Your task to perform on an android device: Search for "apple airpods pro" on target.com, select the first entry, and add it to the cart. Image 0: 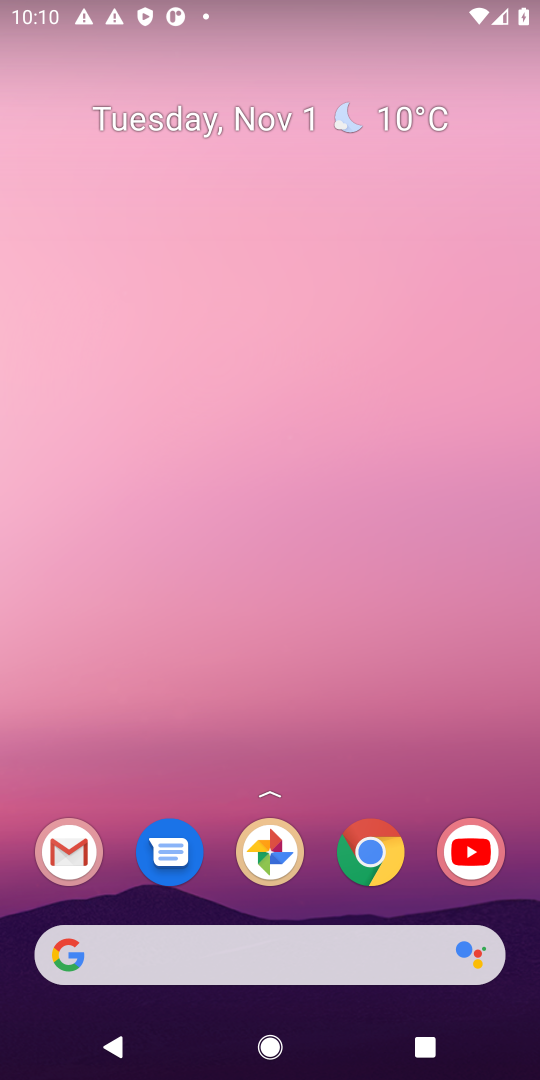
Step 0: click (62, 947)
Your task to perform on an android device: Search for "apple airpods pro" on target.com, select the first entry, and add it to the cart. Image 1: 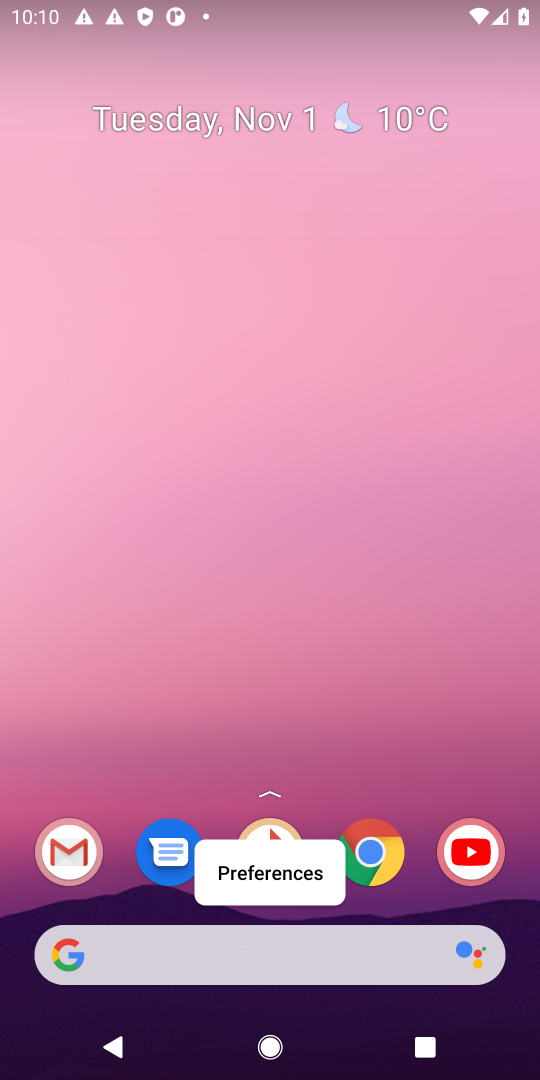
Step 1: click (66, 997)
Your task to perform on an android device: Search for "apple airpods pro" on target.com, select the first entry, and add it to the cart. Image 2: 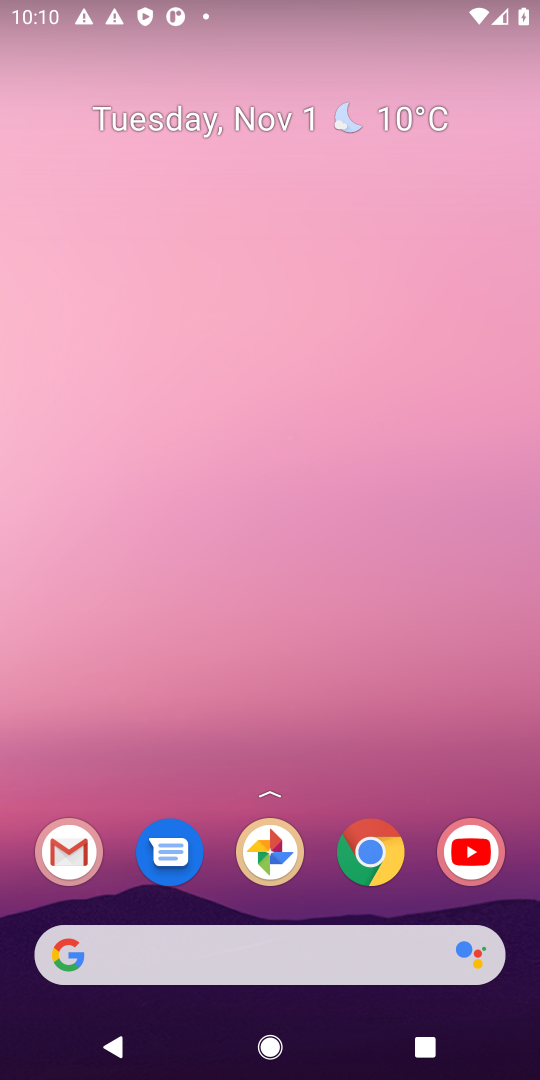
Step 2: click (62, 961)
Your task to perform on an android device: Search for "apple airpods pro" on target.com, select the first entry, and add it to the cart. Image 3: 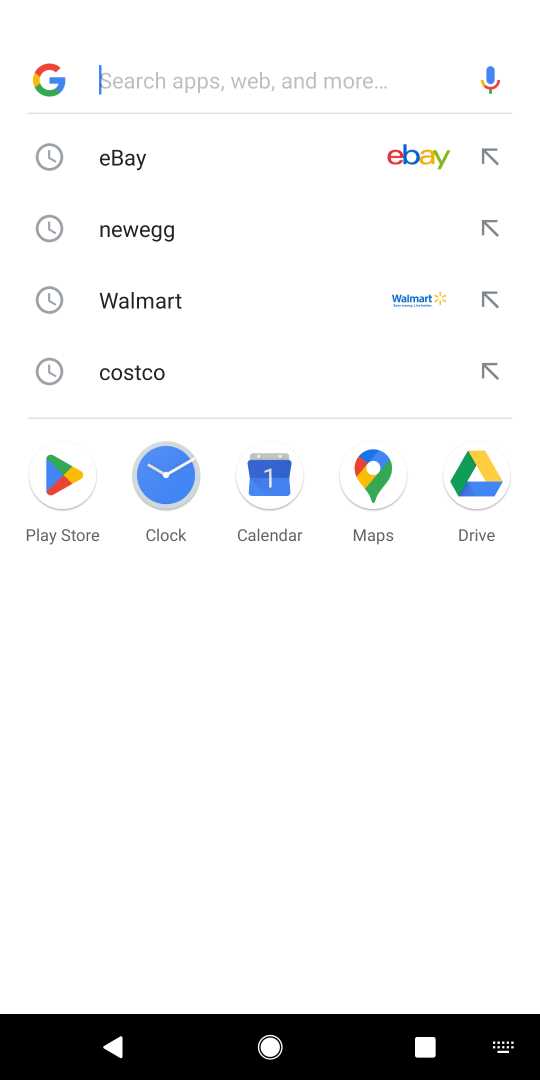
Step 3: type "target.com"
Your task to perform on an android device: Search for "apple airpods pro" on target.com, select the first entry, and add it to the cart. Image 4: 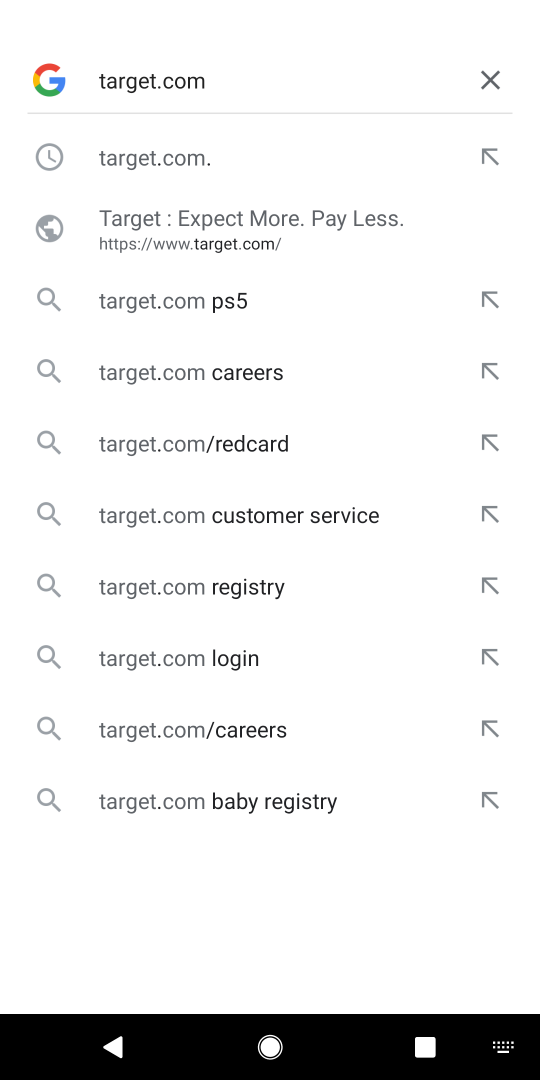
Step 4: press enter
Your task to perform on an android device: Search for "apple airpods pro" on target.com, select the first entry, and add it to the cart. Image 5: 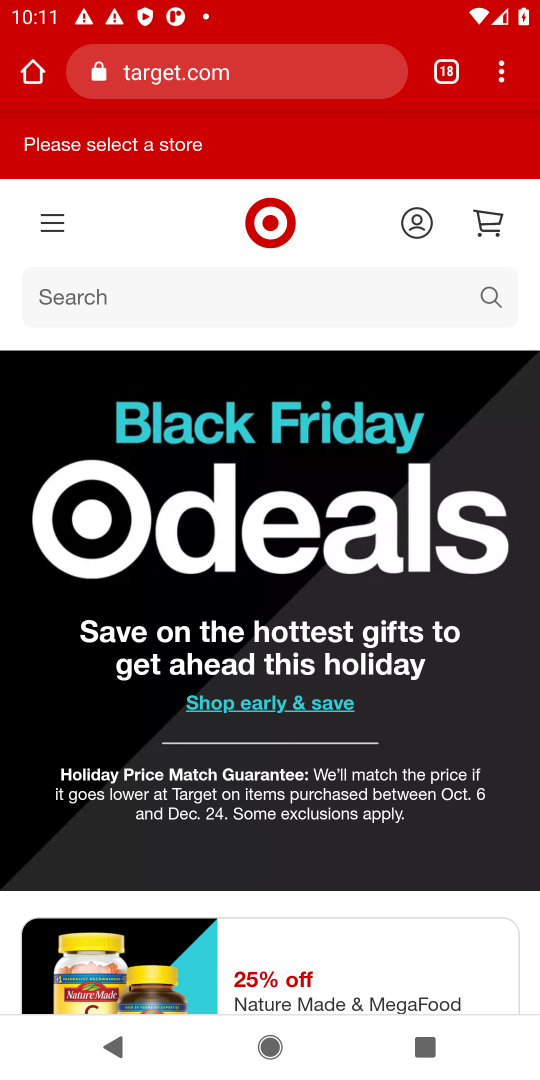
Step 5: click (216, 68)
Your task to perform on an android device: Search for "apple airpods pro" on target.com, select the first entry, and add it to the cart. Image 6: 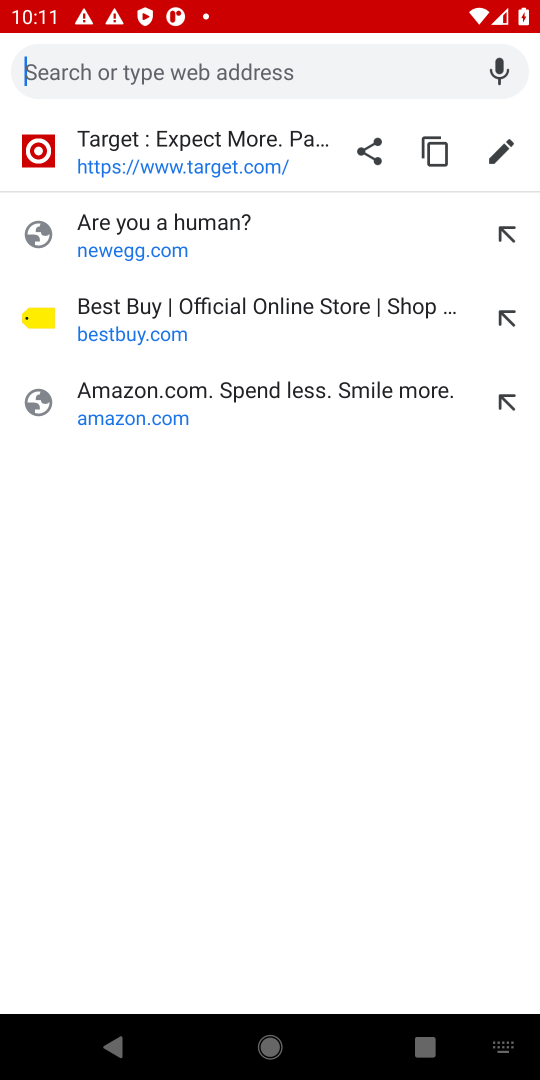
Step 6: type "apple airpods pro"
Your task to perform on an android device: Search for "apple airpods pro" on target.com, select the first entry, and add it to the cart. Image 7: 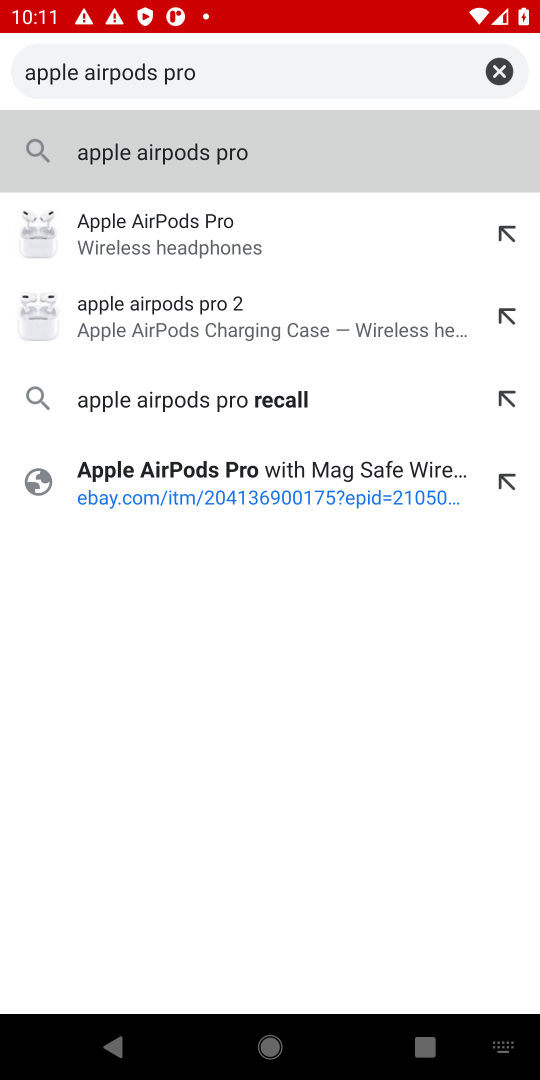
Step 7: press enter
Your task to perform on an android device: Search for "apple airpods pro" on target.com, select the first entry, and add it to the cart. Image 8: 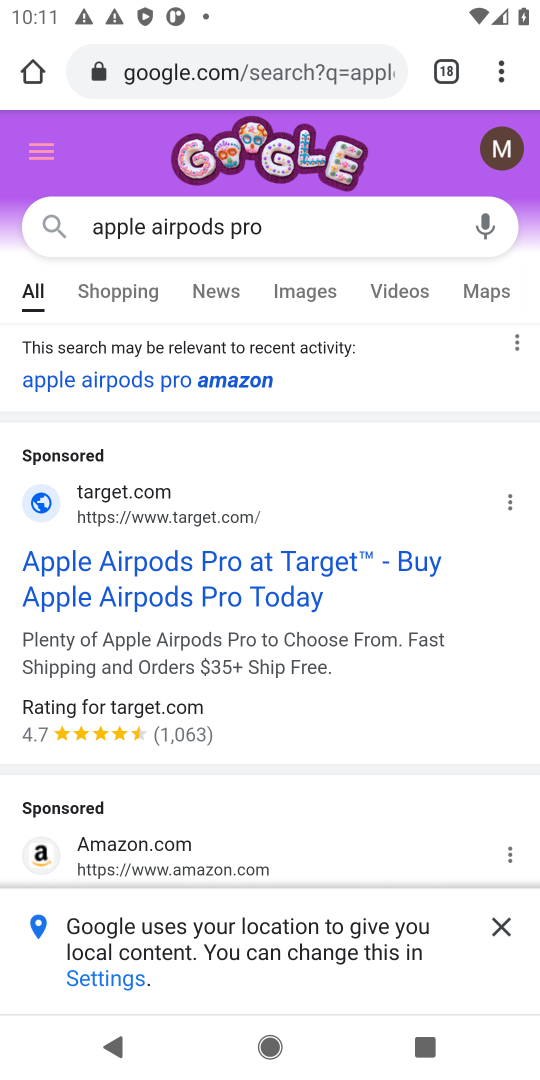
Step 8: click (202, 571)
Your task to perform on an android device: Search for "apple airpods pro" on target.com, select the first entry, and add it to the cart. Image 9: 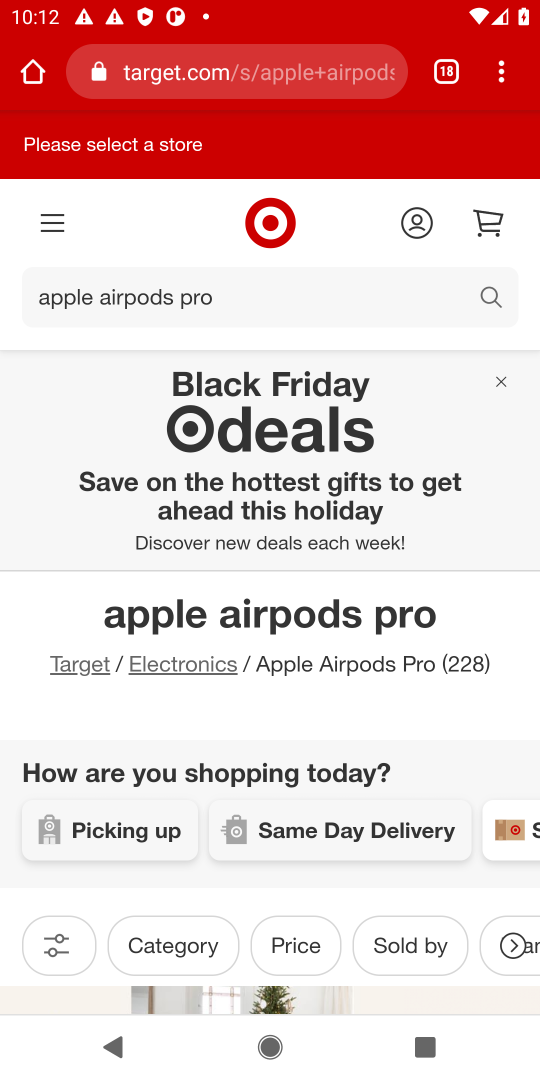
Step 9: drag from (461, 707) to (467, 163)
Your task to perform on an android device: Search for "apple airpods pro" on target.com, select the first entry, and add it to the cart. Image 10: 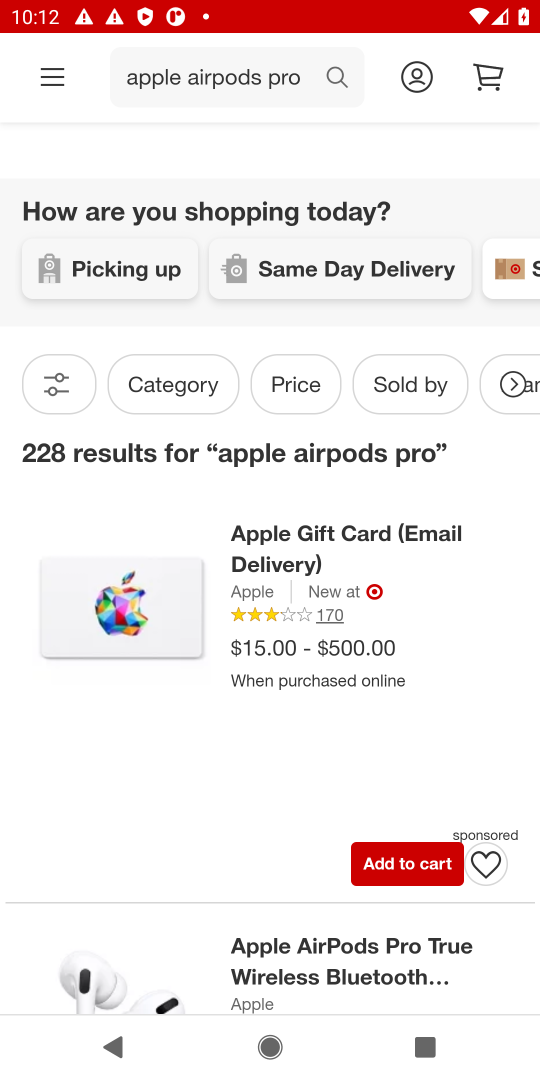
Step 10: drag from (412, 739) to (440, 357)
Your task to perform on an android device: Search for "apple airpods pro" on target.com, select the first entry, and add it to the cart. Image 11: 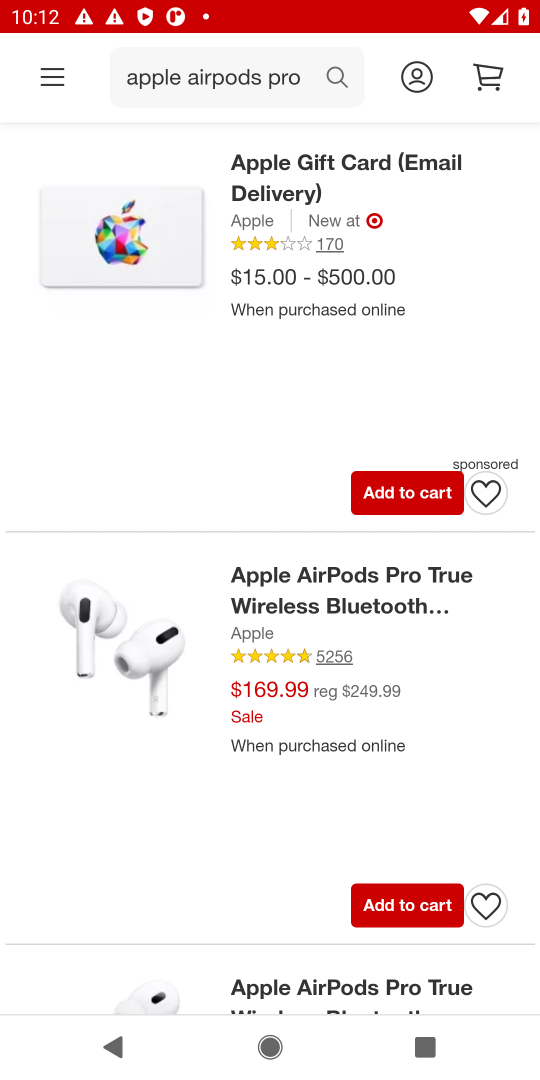
Step 11: click (124, 641)
Your task to perform on an android device: Search for "apple airpods pro" on target.com, select the first entry, and add it to the cart. Image 12: 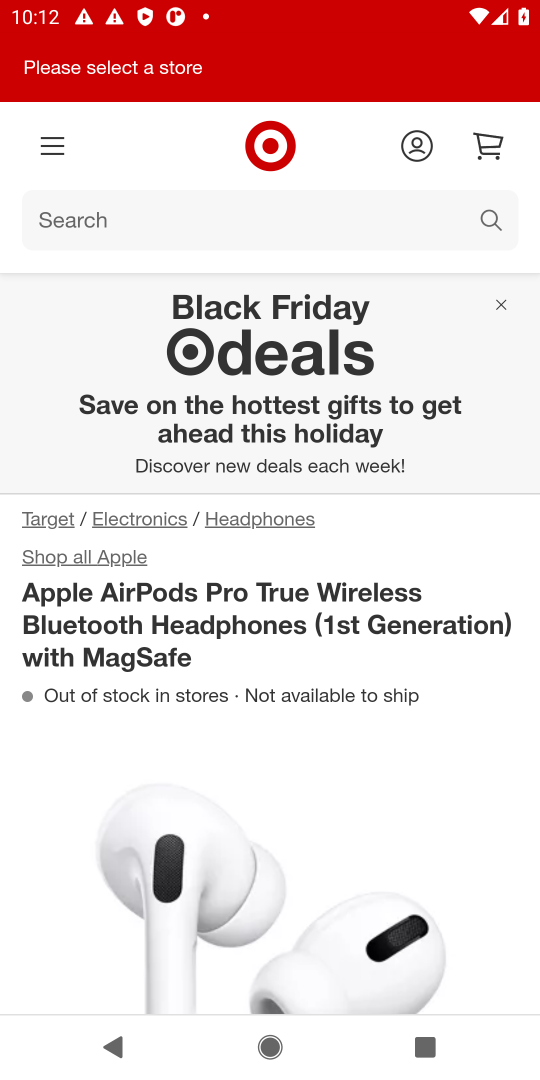
Step 12: drag from (311, 811) to (352, 323)
Your task to perform on an android device: Search for "apple airpods pro" on target.com, select the first entry, and add it to the cart. Image 13: 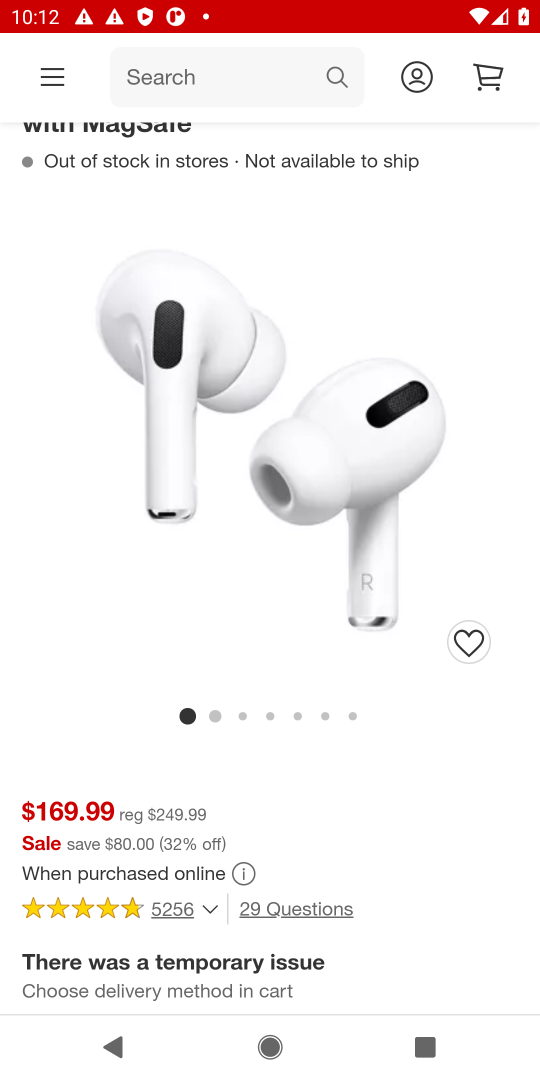
Step 13: drag from (409, 814) to (427, 494)
Your task to perform on an android device: Search for "apple airpods pro" on target.com, select the first entry, and add it to the cart. Image 14: 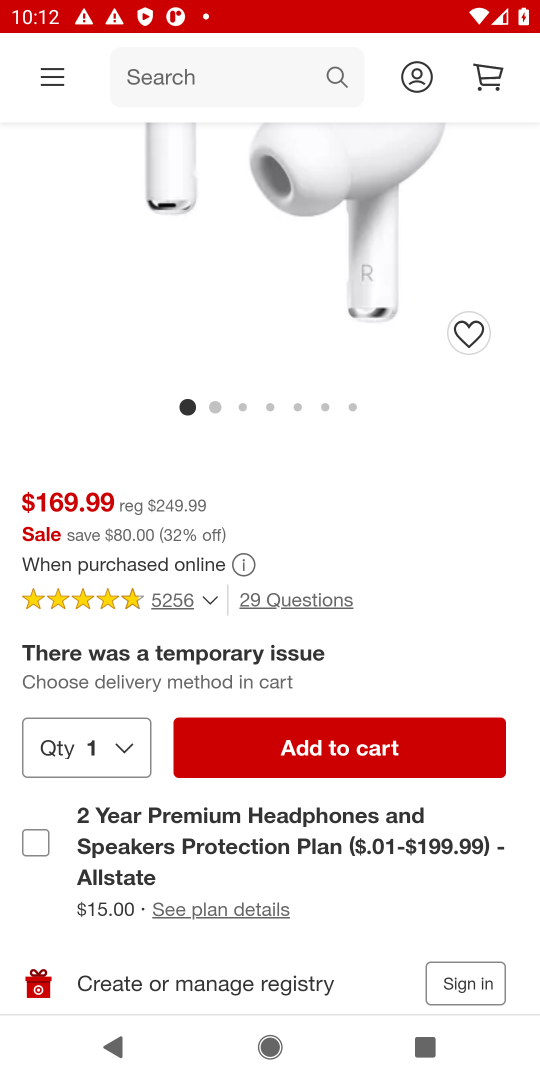
Step 14: click (320, 758)
Your task to perform on an android device: Search for "apple airpods pro" on target.com, select the first entry, and add it to the cart. Image 15: 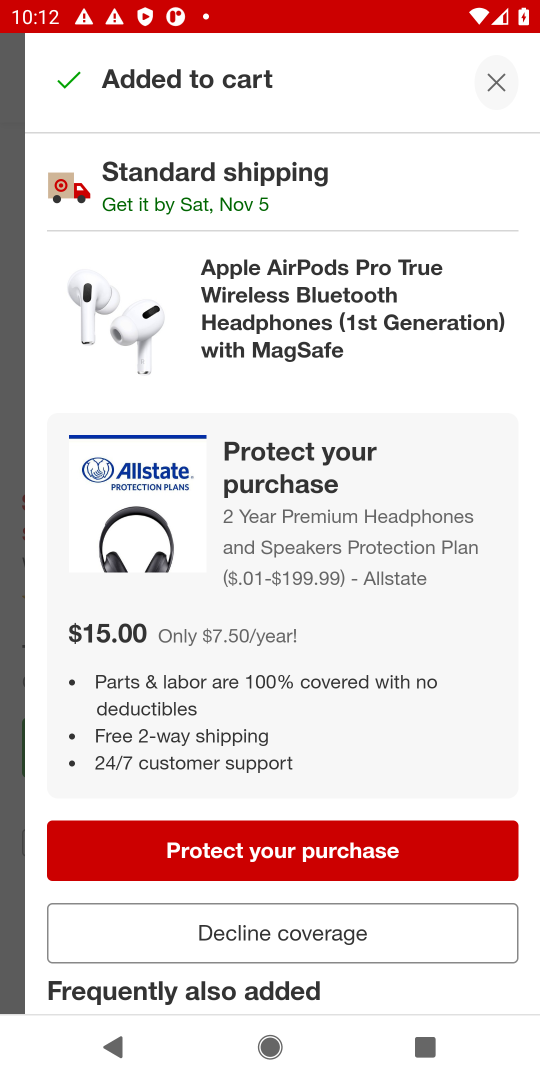
Step 15: task complete